Your task to perform on an android device: Go to eBay Image 0: 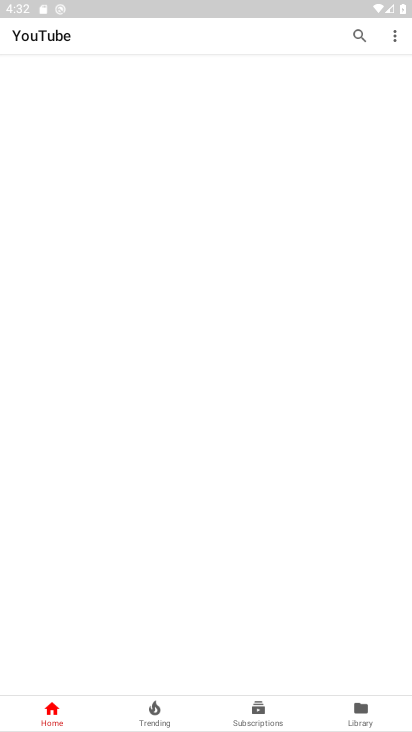
Step 0: press home button
Your task to perform on an android device: Go to eBay Image 1: 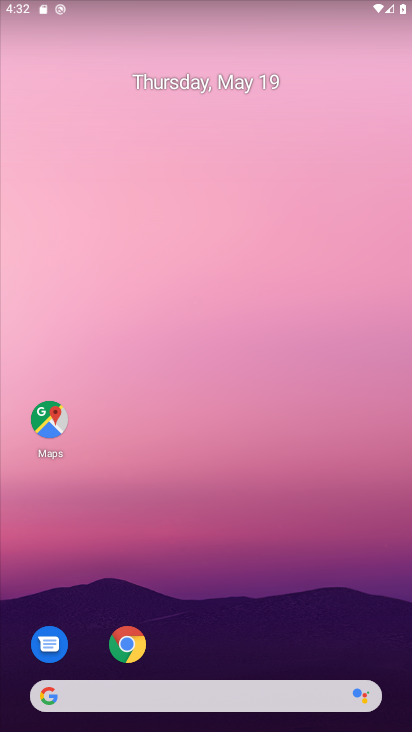
Step 1: click (136, 632)
Your task to perform on an android device: Go to eBay Image 2: 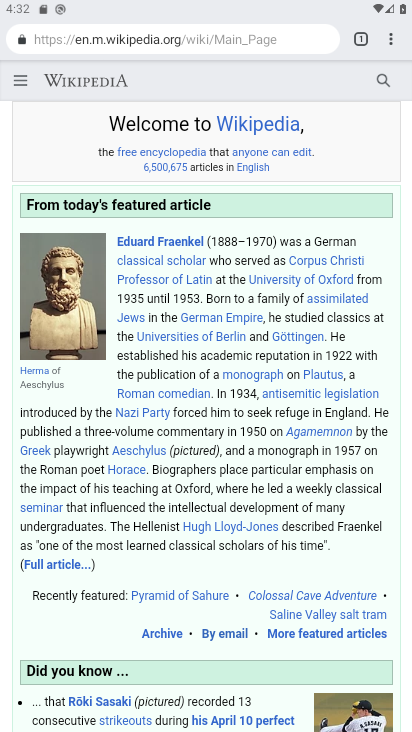
Step 2: click (196, 27)
Your task to perform on an android device: Go to eBay Image 3: 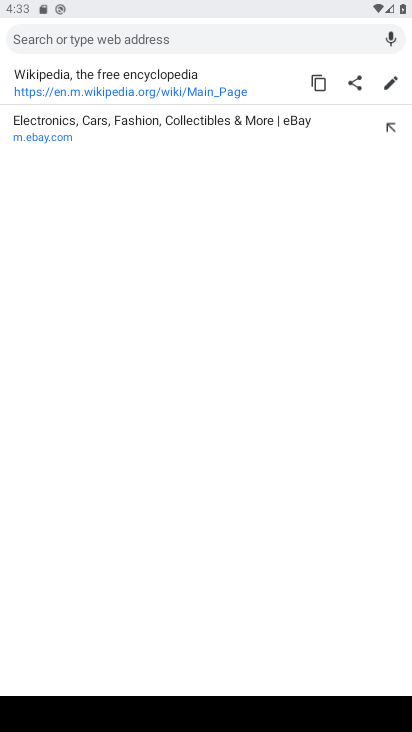
Step 3: type "eBay"
Your task to perform on an android device: Go to eBay Image 4: 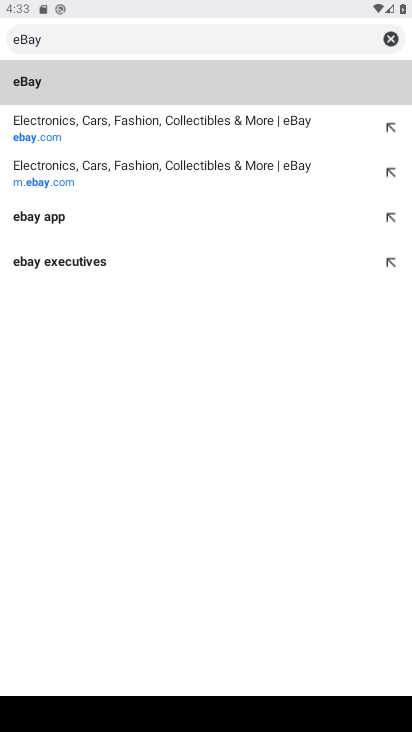
Step 4: click (110, 65)
Your task to perform on an android device: Go to eBay Image 5: 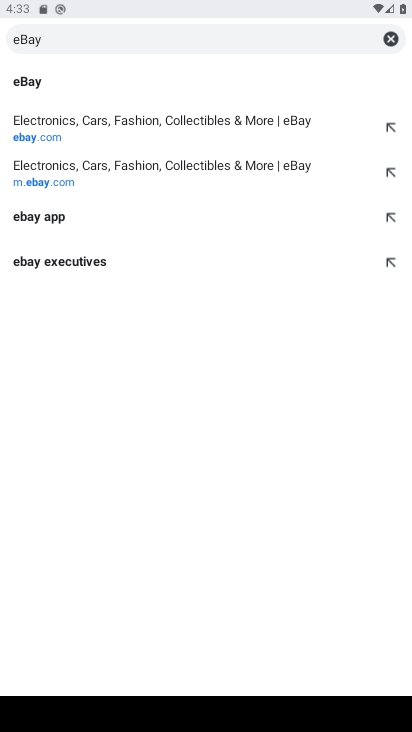
Step 5: click (165, 82)
Your task to perform on an android device: Go to eBay Image 6: 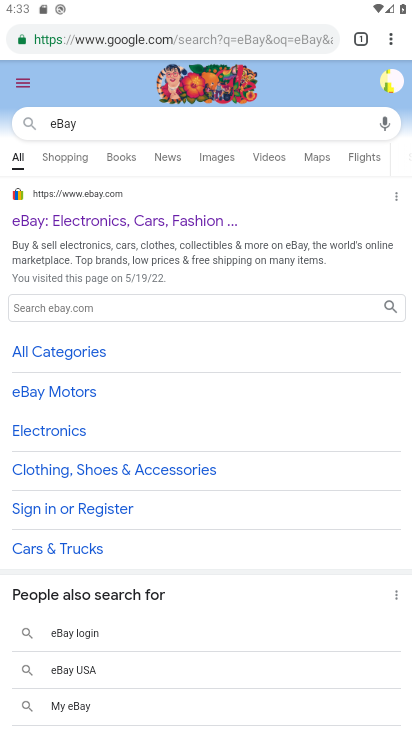
Step 6: click (230, 221)
Your task to perform on an android device: Go to eBay Image 7: 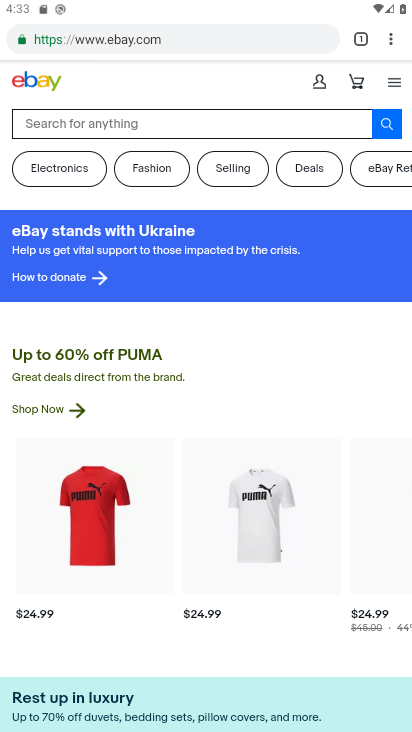
Step 7: task complete